Your task to perform on an android device: Open Amazon Image 0: 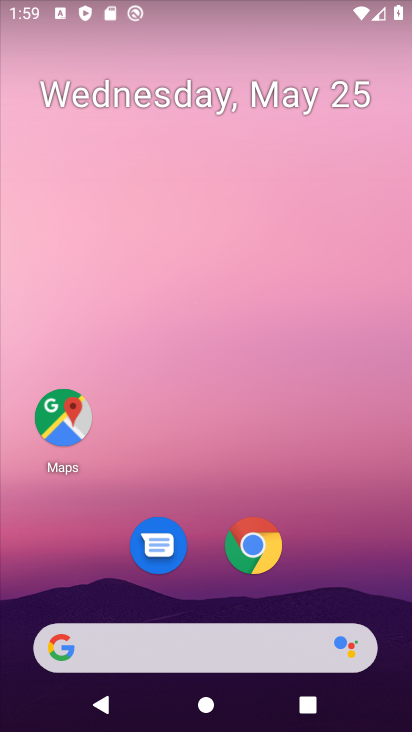
Step 0: click (259, 549)
Your task to perform on an android device: Open Amazon Image 1: 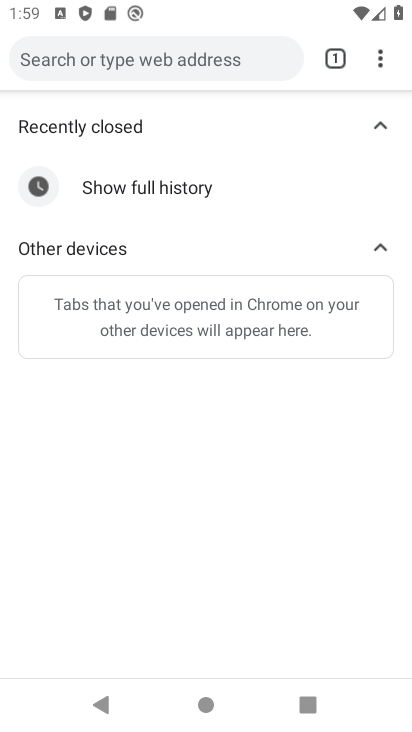
Step 1: click (200, 54)
Your task to perform on an android device: Open Amazon Image 2: 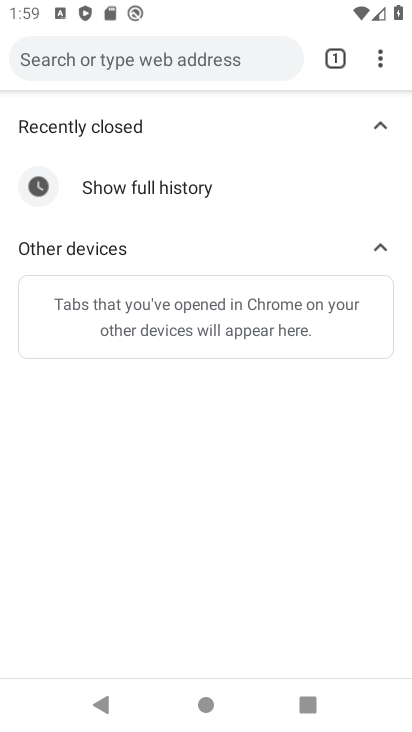
Step 2: click (200, 54)
Your task to perform on an android device: Open Amazon Image 3: 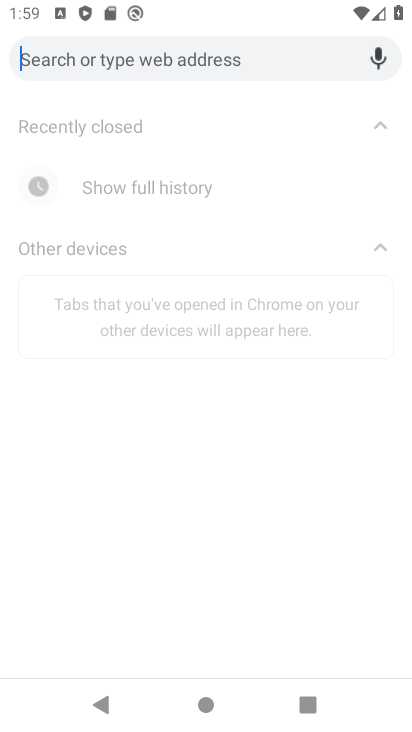
Step 3: click (200, 54)
Your task to perform on an android device: Open Amazon Image 4: 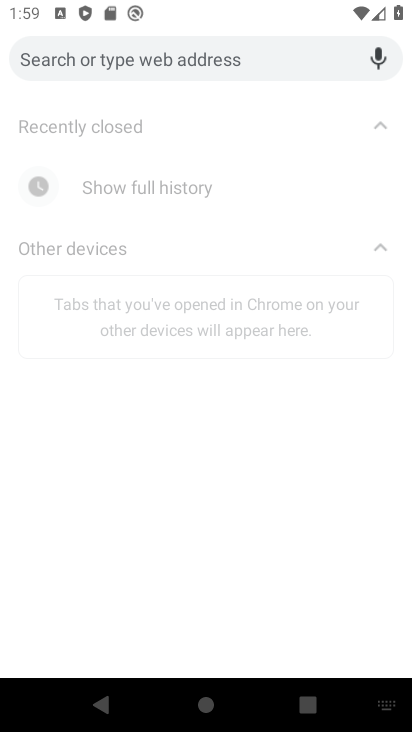
Step 4: click (200, 54)
Your task to perform on an android device: Open Amazon Image 5: 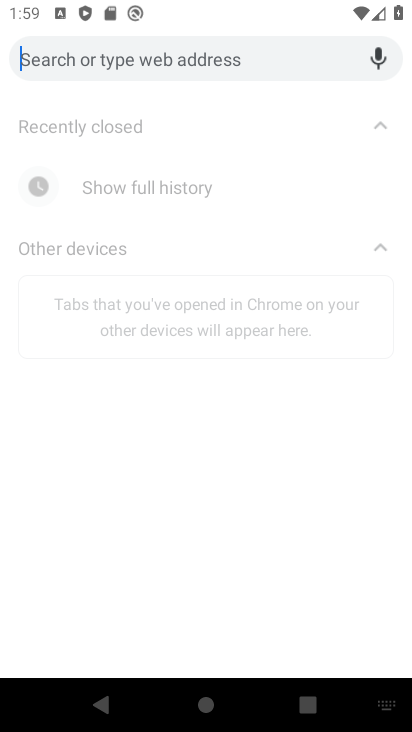
Step 5: type "amazon"
Your task to perform on an android device: Open Amazon Image 6: 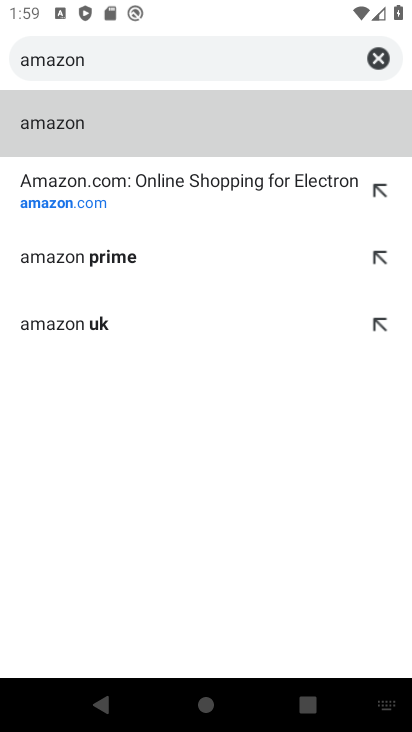
Step 6: click (239, 205)
Your task to perform on an android device: Open Amazon Image 7: 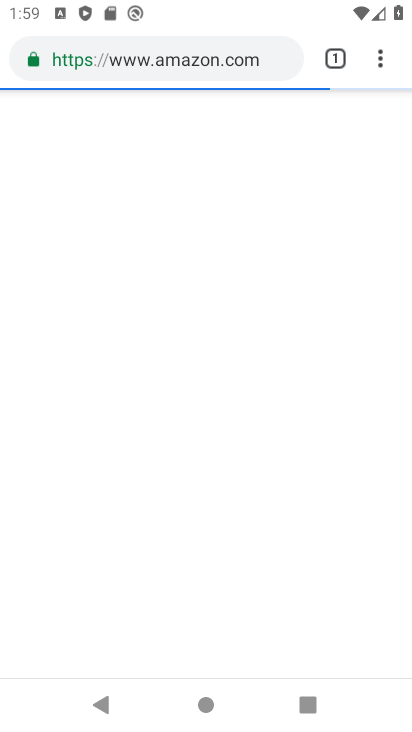
Step 7: task complete